Your task to perform on an android device: Open ESPN.com Image 0: 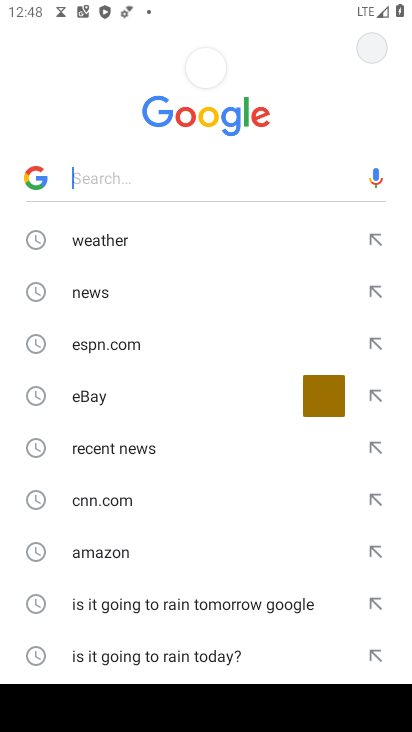
Step 0: press home button
Your task to perform on an android device: Open ESPN.com Image 1: 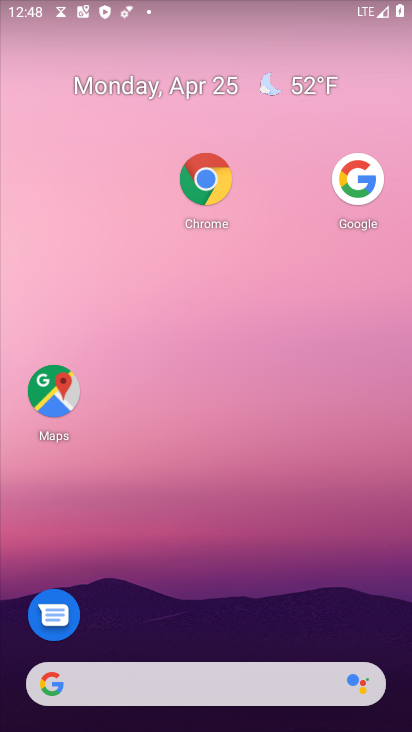
Step 1: click (209, 187)
Your task to perform on an android device: Open ESPN.com Image 2: 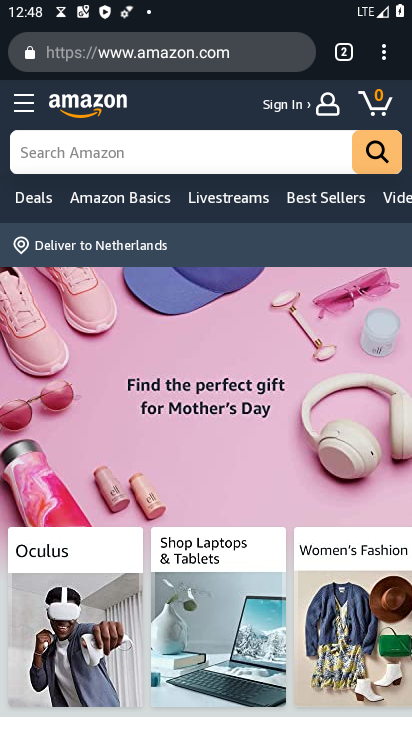
Step 2: drag from (382, 58) to (184, 161)
Your task to perform on an android device: Open ESPN.com Image 3: 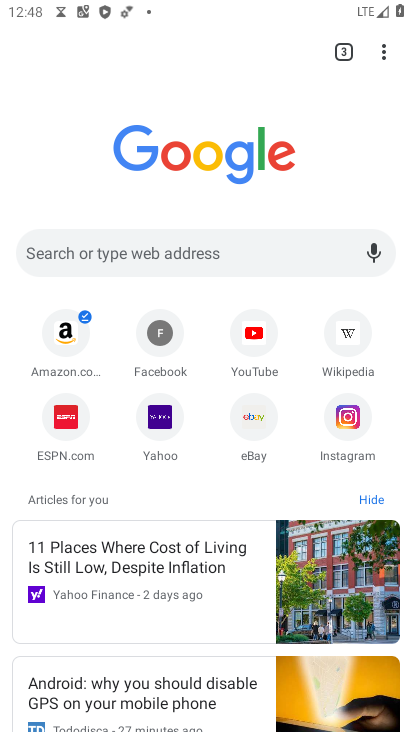
Step 3: click (64, 424)
Your task to perform on an android device: Open ESPN.com Image 4: 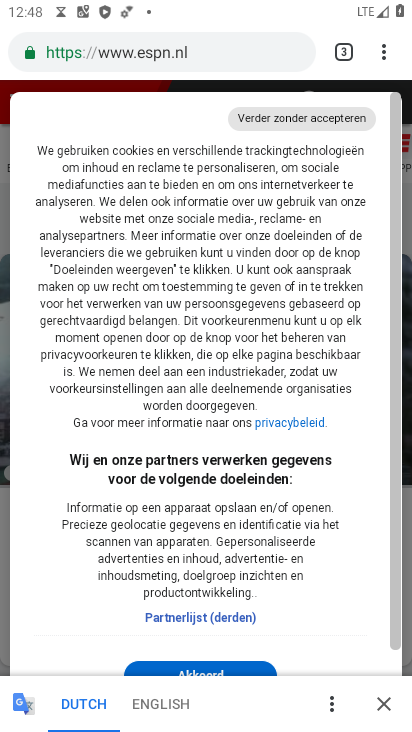
Step 4: task complete